Your task to perform on an android device: toggle javascript in the chrome app Image 0: 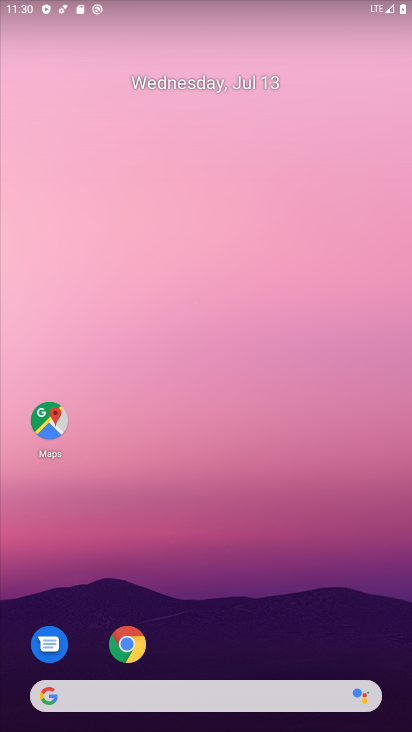
Step 0: drag from (160, 668) to (248, 225)
Your task to perform on an android device: toggle javascript in the chrome app Image 1: 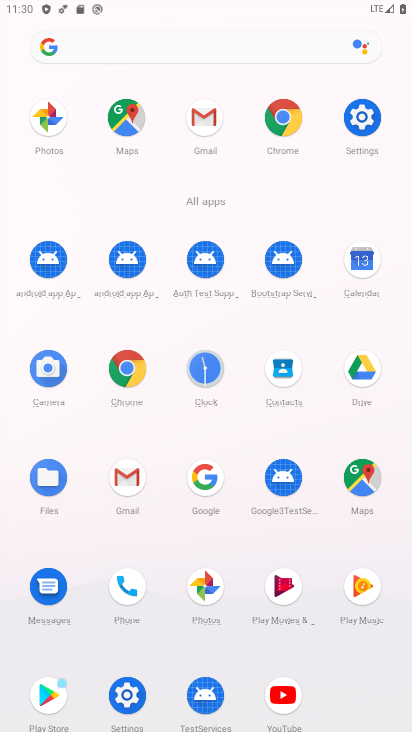
Step 1: click (129, 372)
Your task to perform on an android device: toggle javascript in the chrome app Image 2: 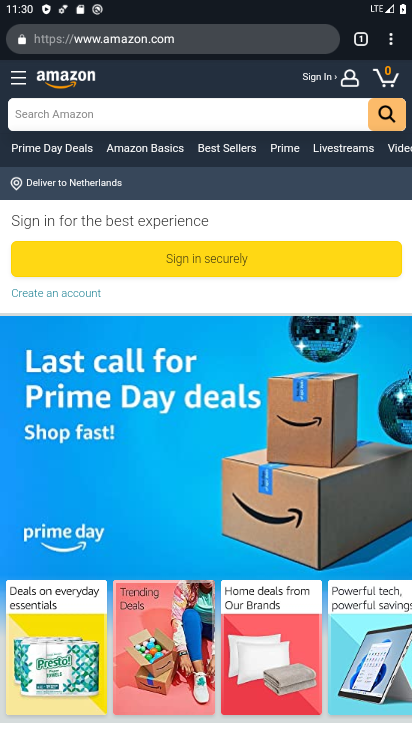
Step 2: drag from (395, 35) to (272, 509)
Your task to perform on an android device: toggle javascript in the chrome app Image 3: 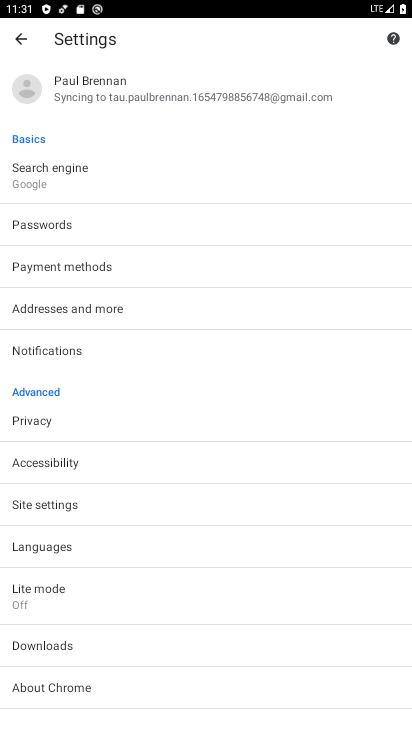
Step 3: click (72, 510)
Your task to perform on an android device: toggle javascript in the chrome app Image 4: 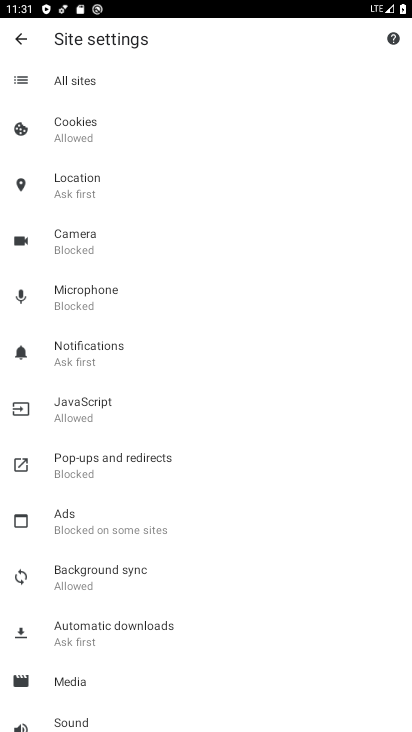
Step 4: click (144, 415)
Your task to perform on an android device: toggle javascript in the chrome app Image 5: 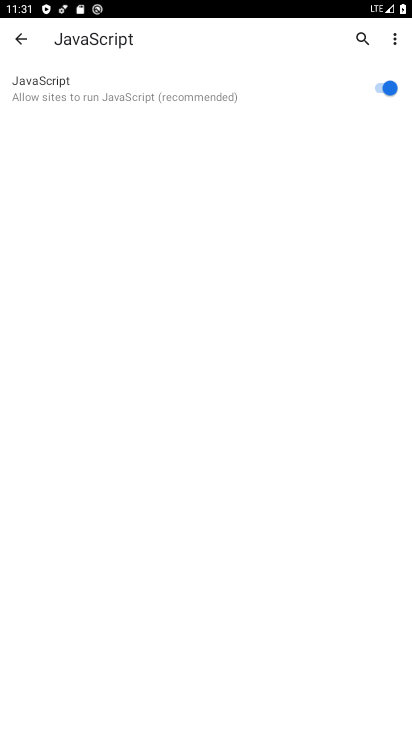
Step 5: click (379, 84)
Your task to perform on an android device: toggle javascript in the chrome app Image 6: 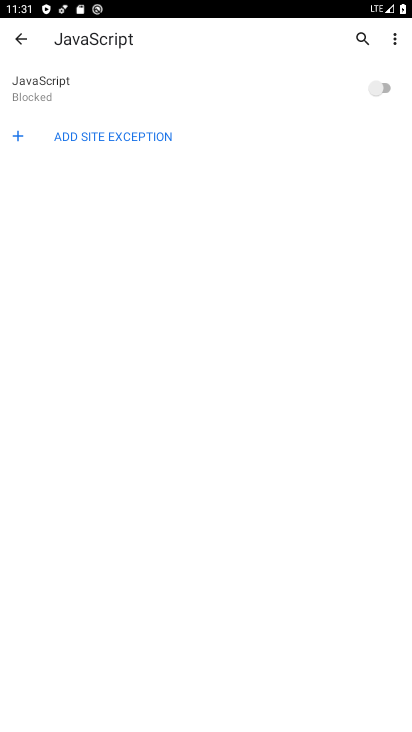
Step 6: task complete